Your task to perform on an android device: toggle priority inbox in the gmail app Image 0: 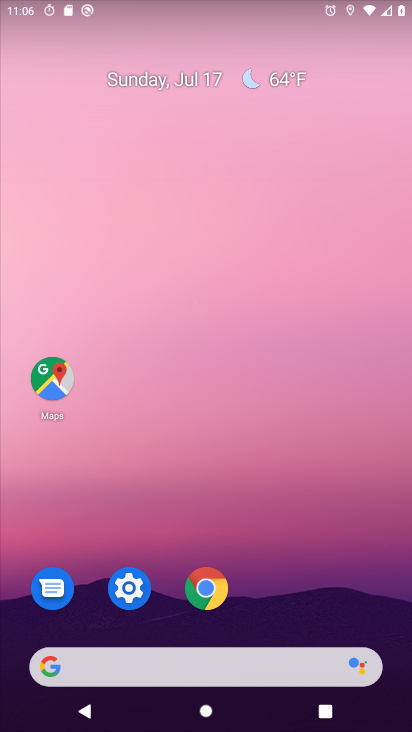
Step 0: drag from (260, 672) to (228, 106)
Your task to perform on an android device: toggle priority inbox in the gmail app Image 1: 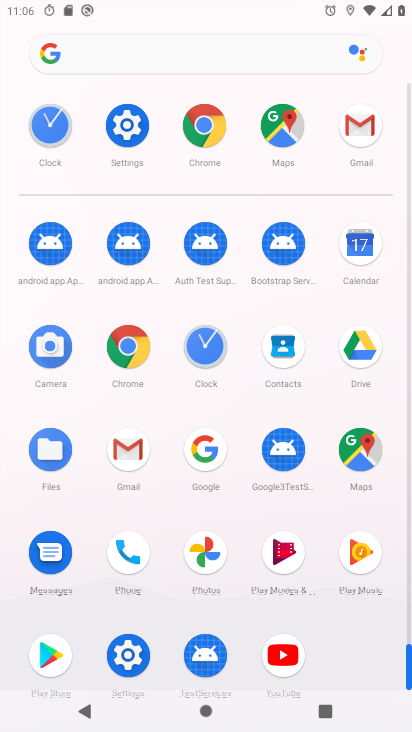
Step 1: click (130, 460)
Your task to perform on an android device: toggle priority inbox in the gmail app Image 2: 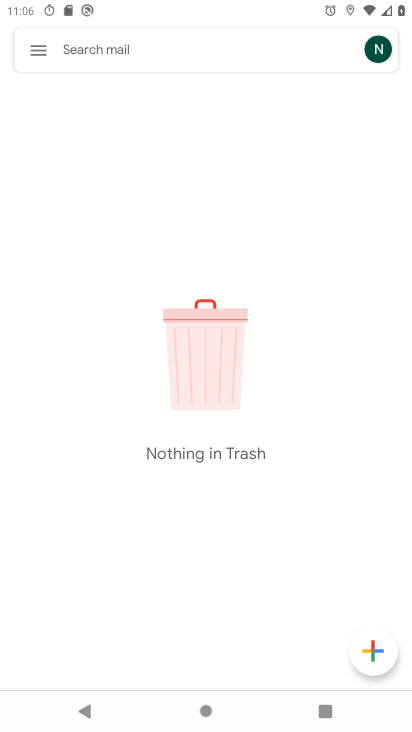
Step 2: click (20, 42)
Your task to perform on an android device: toggle priority inbox in the gmail app Image 3: 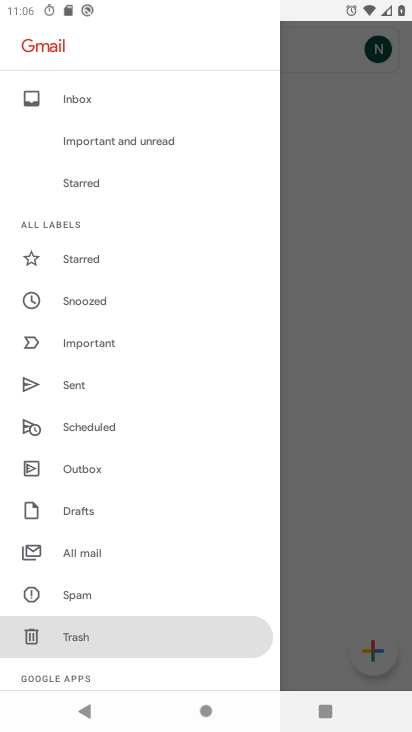
Step 3: drag from (105, 660) to (114, 287)
Your task to perform on an android device: toggle priority inbox in the gmail app Image 4: 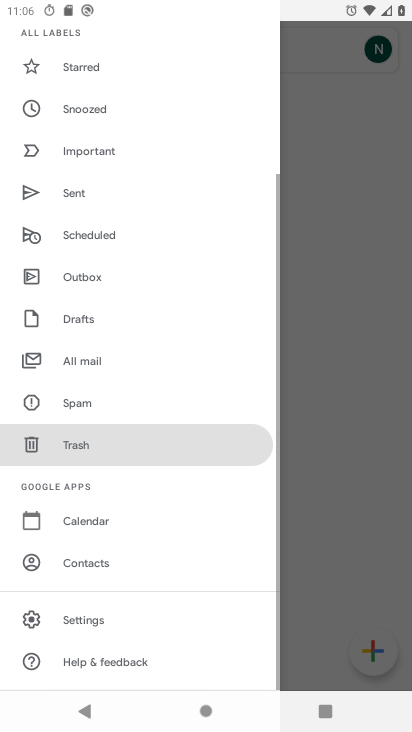
Step 4: drag from (143, 511) to (144, 259)
Your task to perform on an android device: toggle priority inbox in the gmail app Image 5: 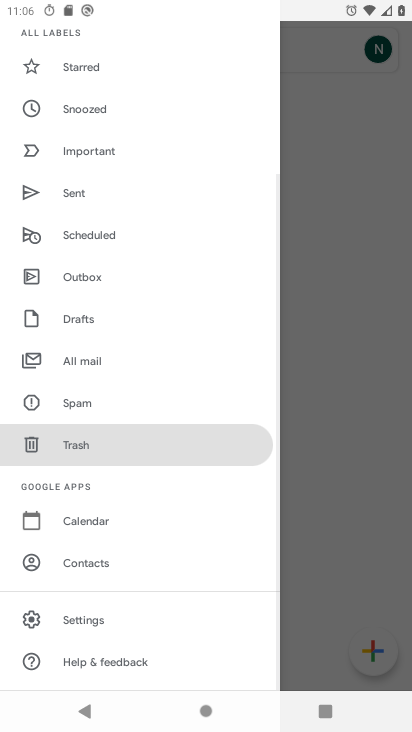
Step 5: click (93, 613)
Your task to perform on an android device: toggle priority inbox in the gmail app Image 6: 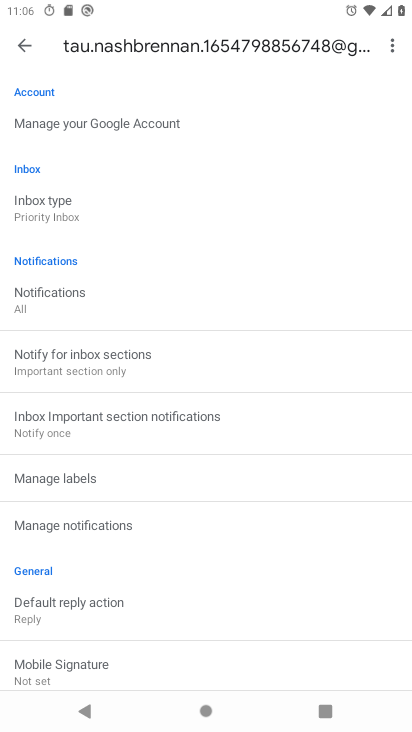
Step 6: click (61, 215)
Your task to perform on an android device: toggle priority inbox in the gmail app Image 7: 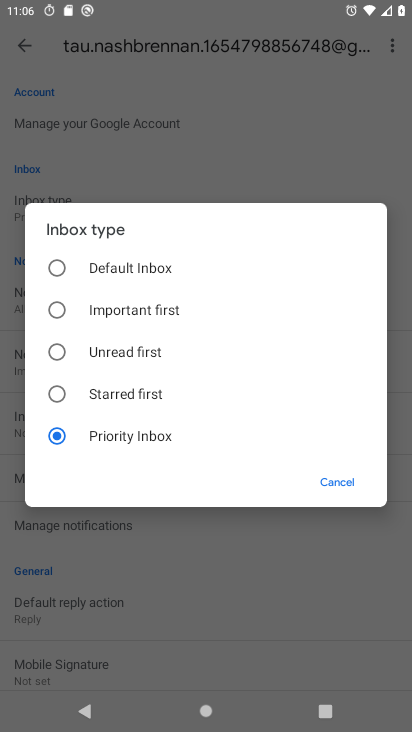
Step 7: click (344, 487)
Your task to perform on an android device: toggle priority inbox in the gmail app Image 8: 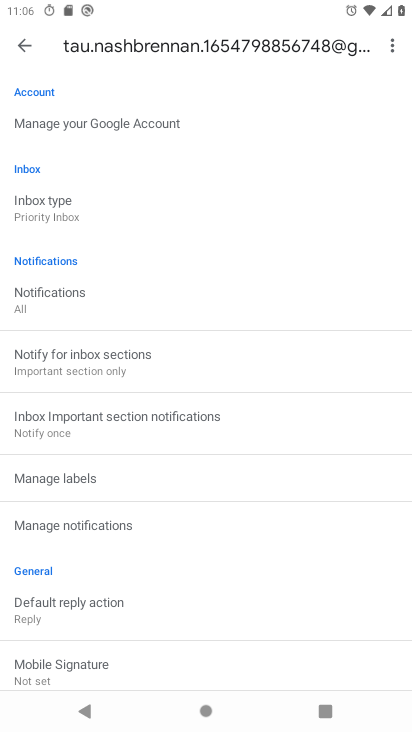
Step 8: click (67, 220)
Your task to perform on an android device: toggle priority inbox in the gmail app Image 9: 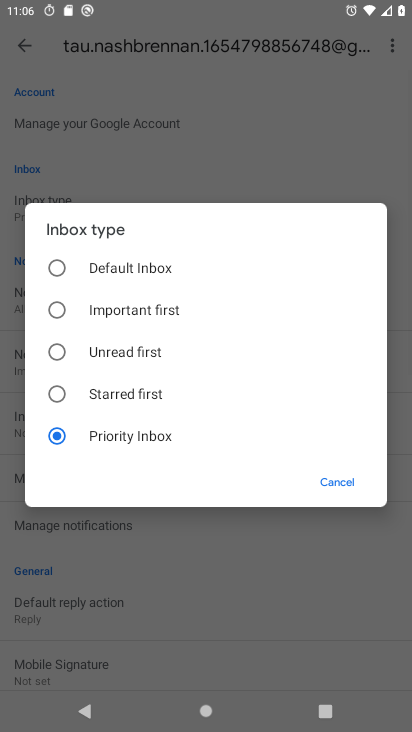
Step 9: click (56, 403)
Your task to perform on an android device: toggle priority inbox in the gmail app Image 10: 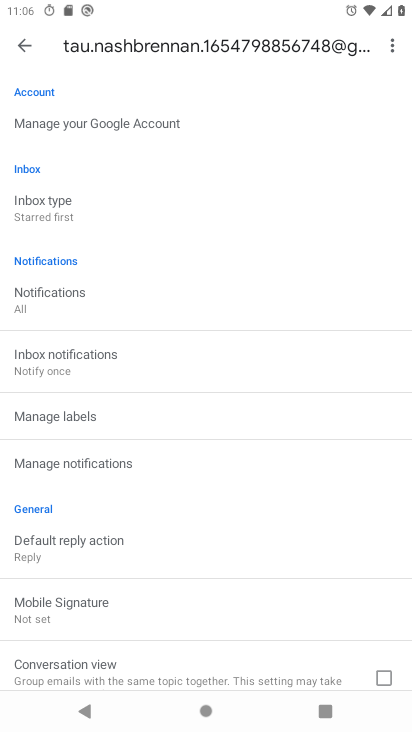
Step 10: task complete